Your task to perform on an android device: open app "Roku - Official Remote Control" (install if not already installed) Image 0: 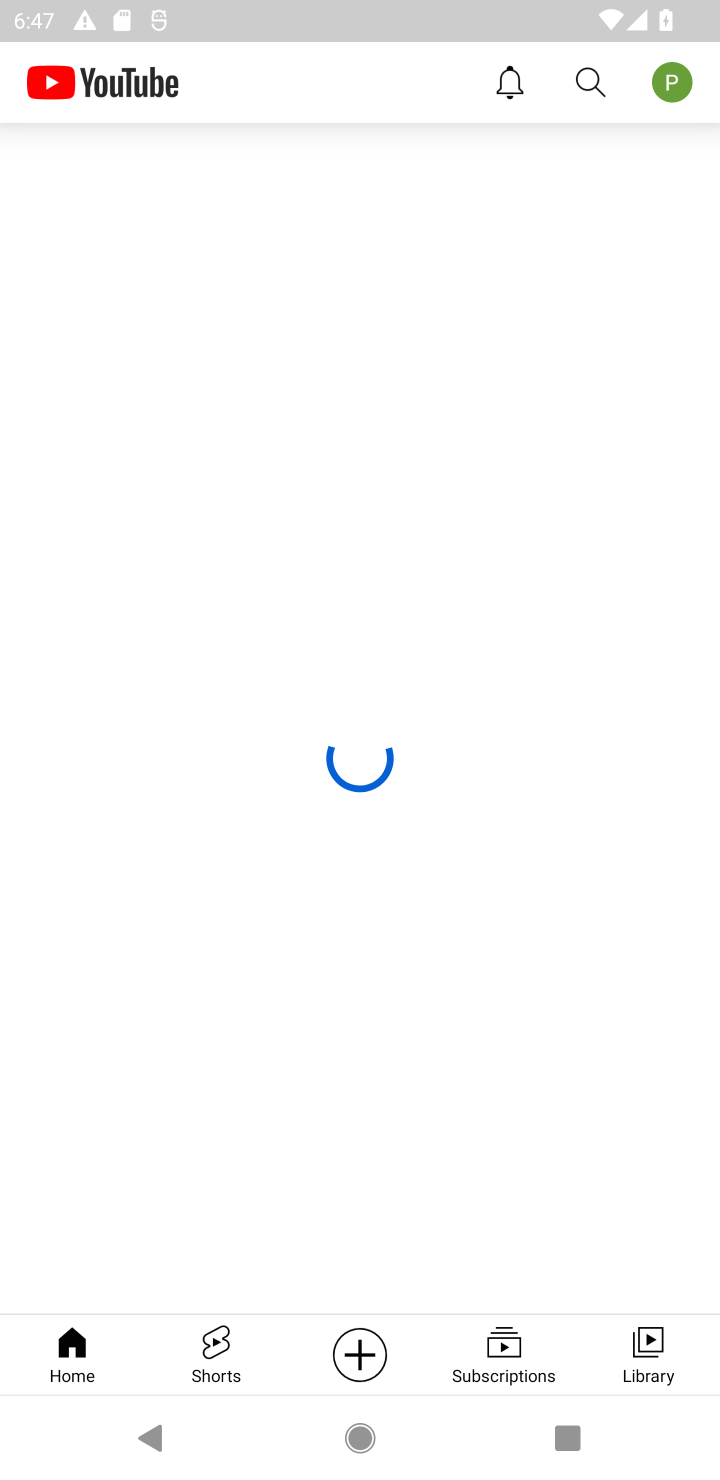
Step 0: press home button
Your task to perform on an android device: open app "Roku - Official Remote Control" (install if not already installed) Image 1: 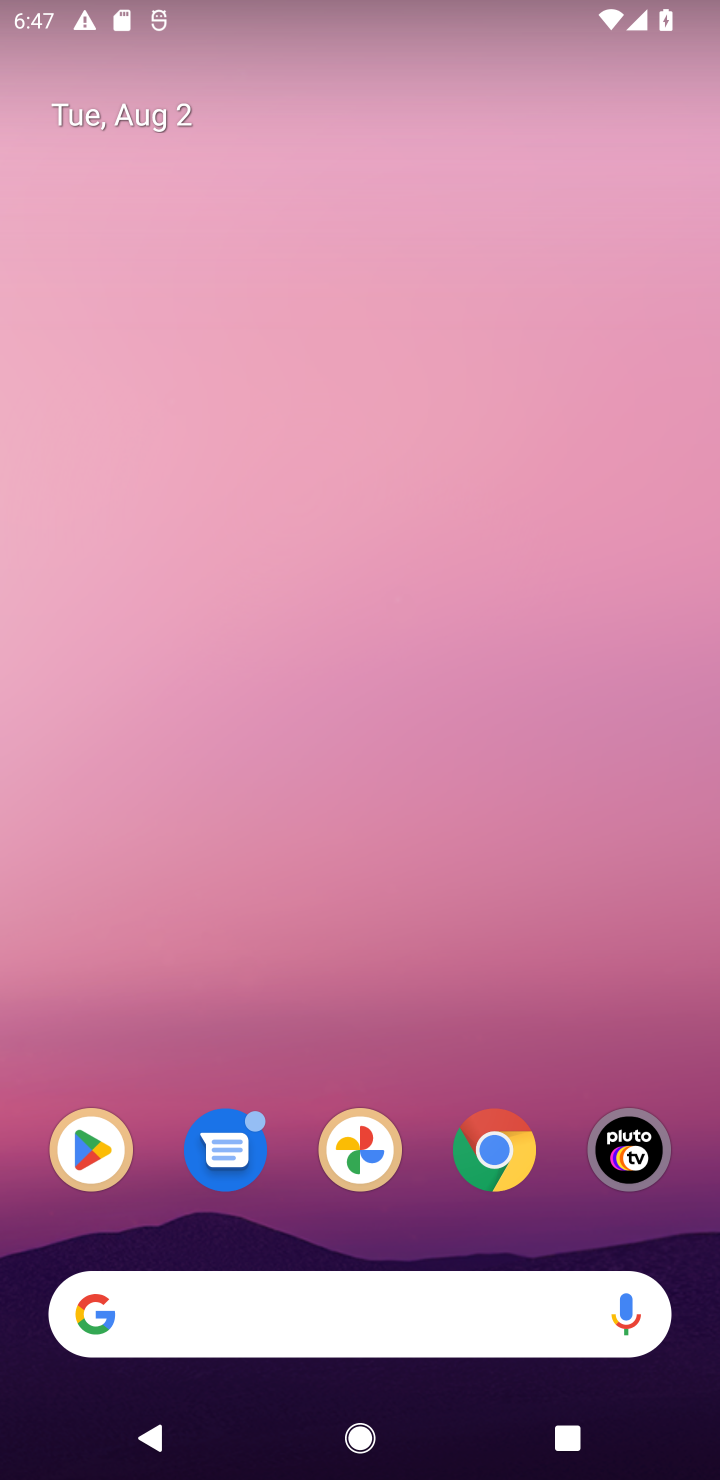
Step 1: drag from (342, 1273) to (494, 4)
Your task to perform on an android device: open app "Roku - Official Remote Control" (install if not already installed) Image 2: 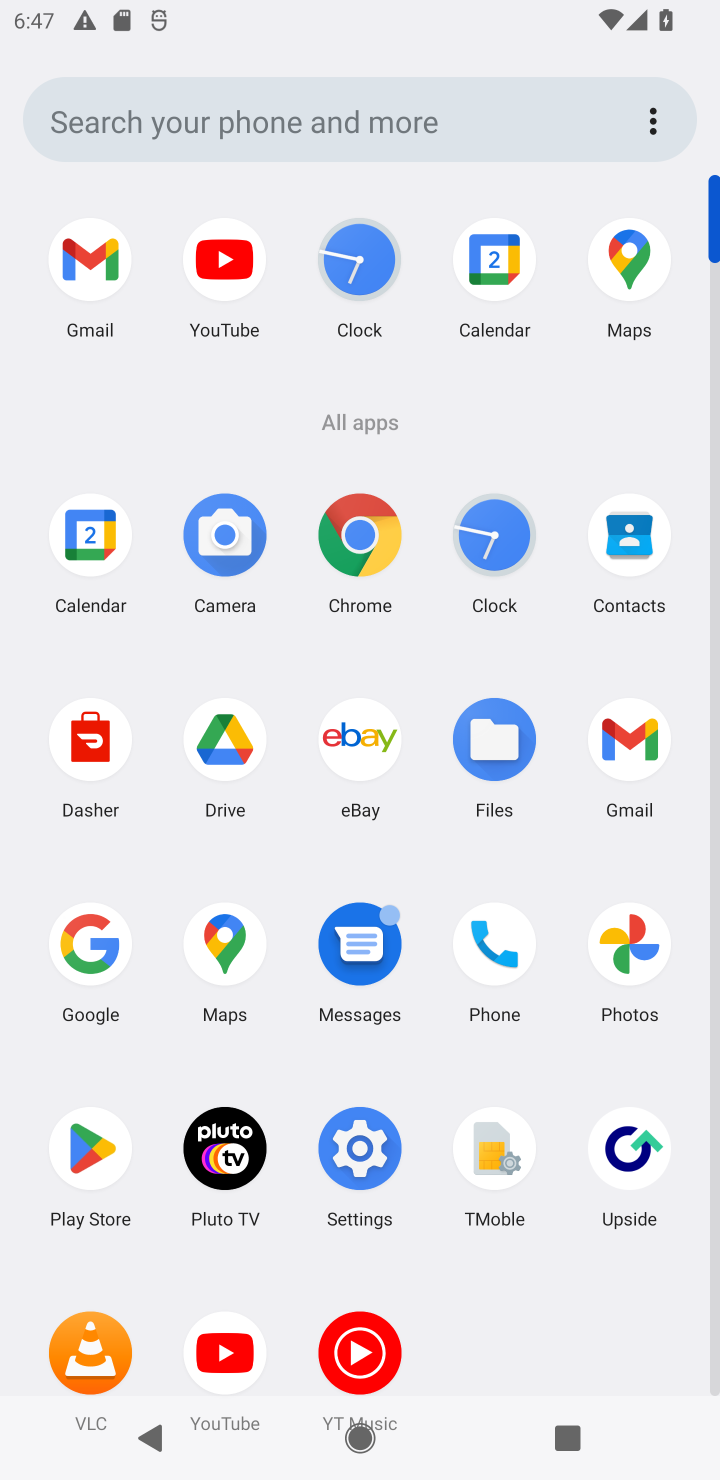
Step 2: click (70, 1157)
Your task to perform on an android device: open app "Roku - Official Remote Control" (install if not already installed) Image 3: 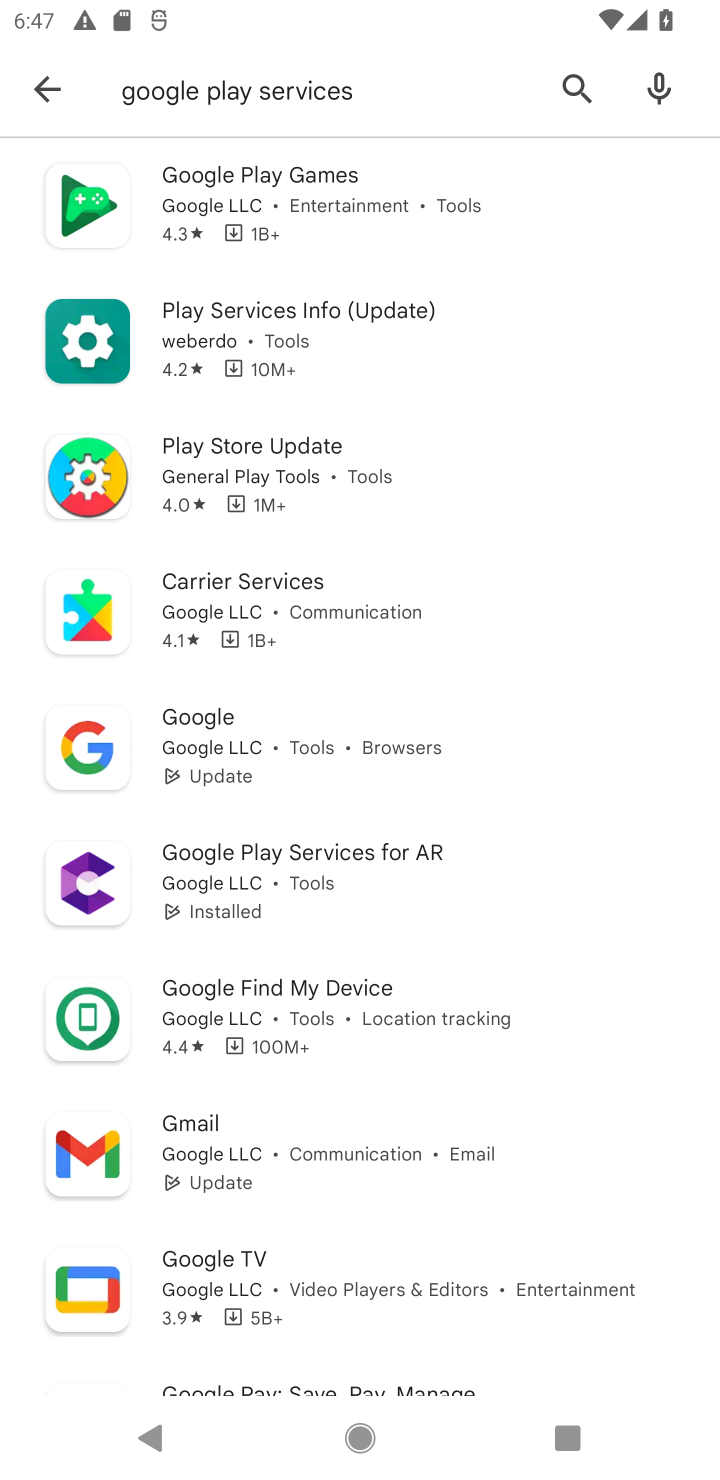
Step 3: click (31, 95)
Your task to perform on an android device: open app "Roku - Official Remote Control" (install if not already installed) Image 4: 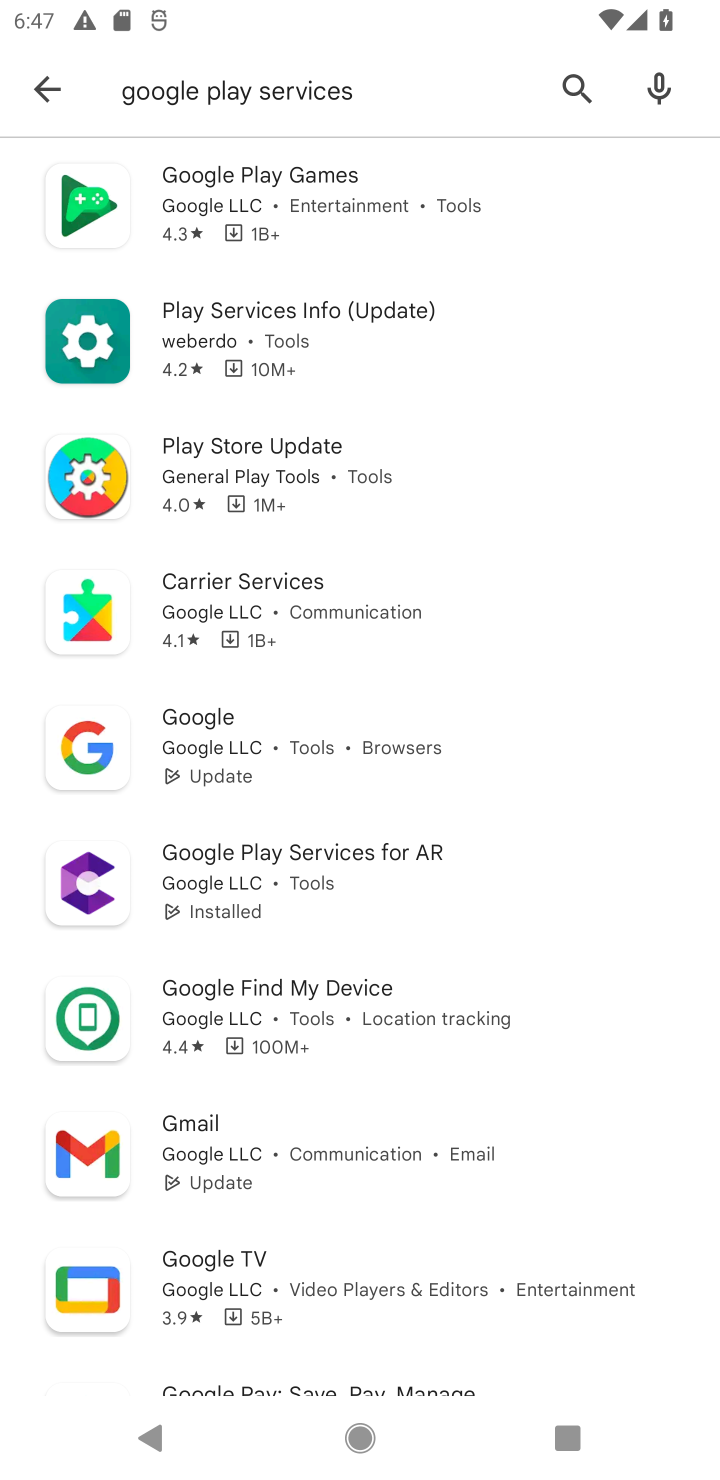
Step 4: click (30, 98)
Your task to perform on an android device: open app "Roku - Official Remote Control" (install if not already installed) Image 5: 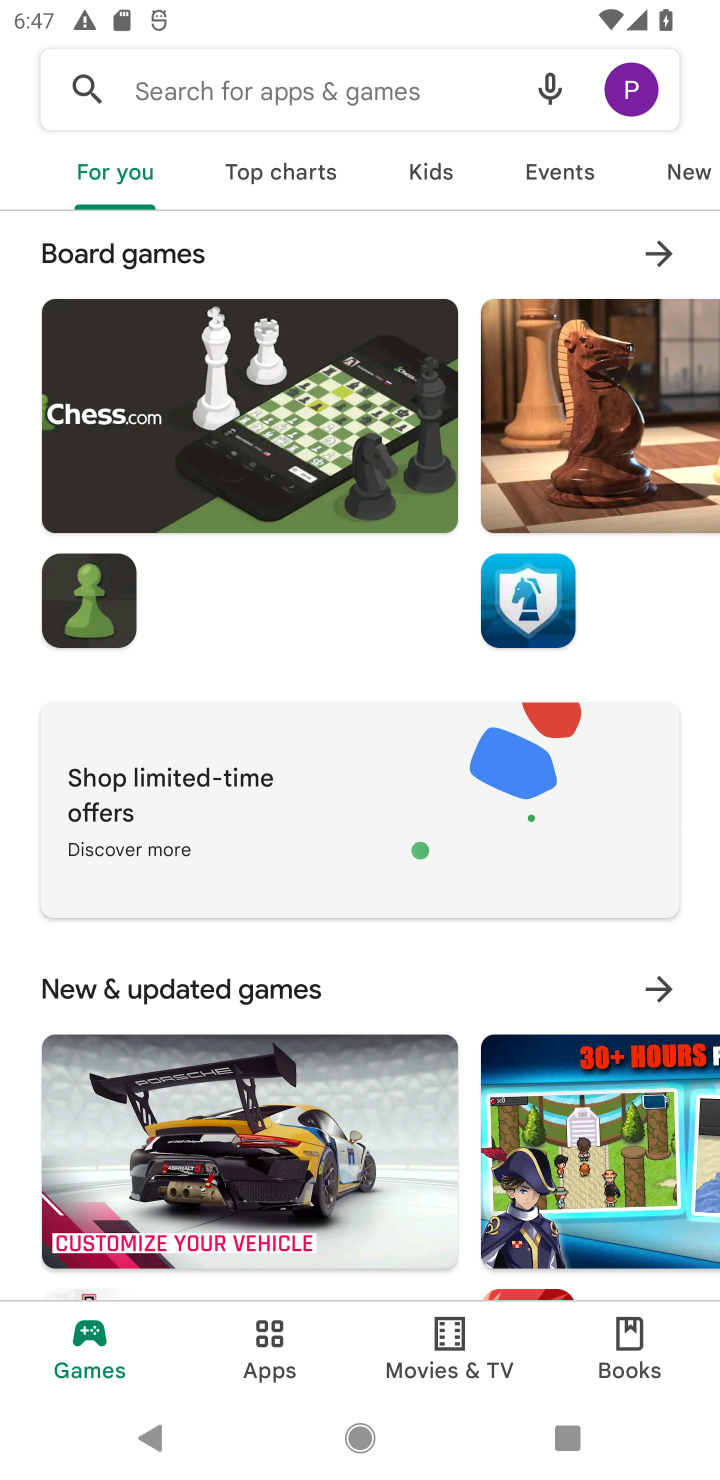
Step 5: click (147, 103)
Your task to perform on an android device: open app "Roku - Official Remote Control" (install if not already installed) Image 6: 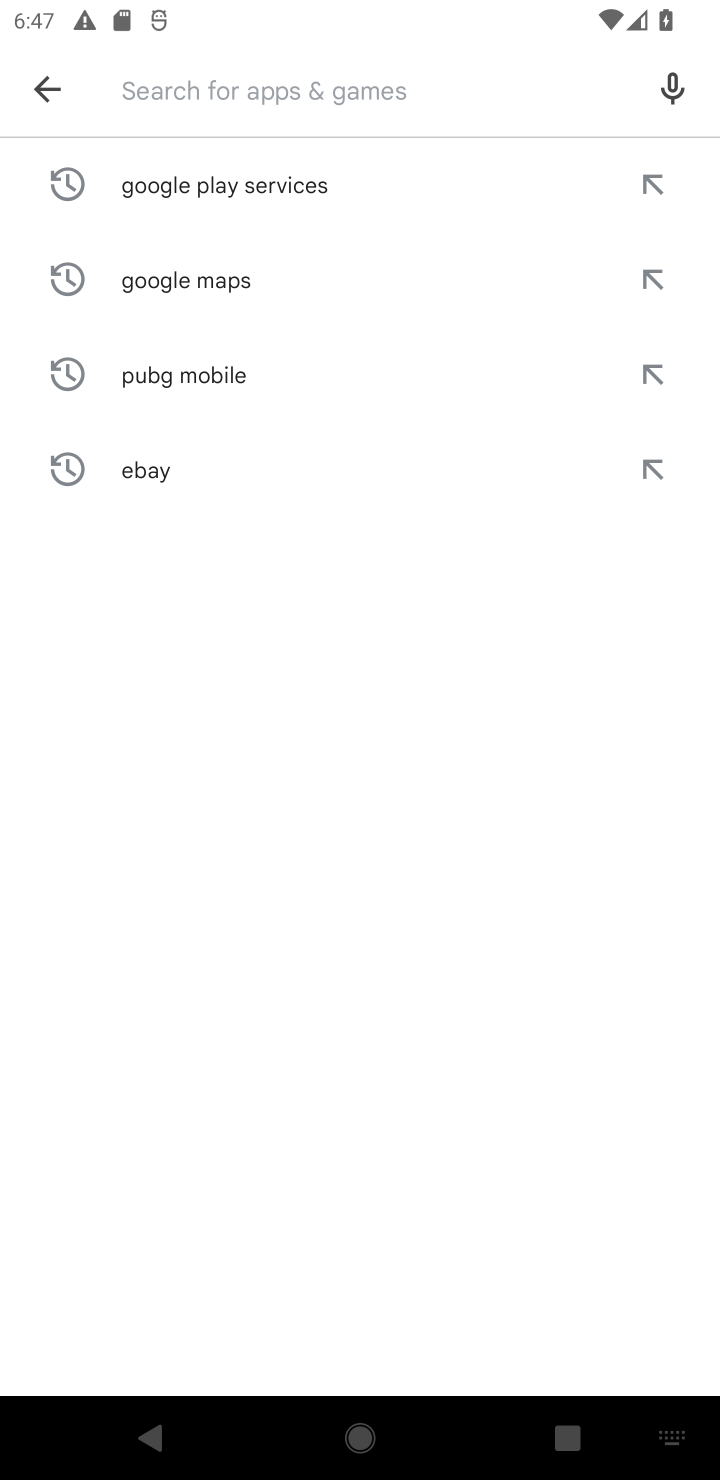
Step 6: type "Roku"
Your task to perform on an android device: open app "Roku - Official Remote Control" (install if not already installed) Image 7: 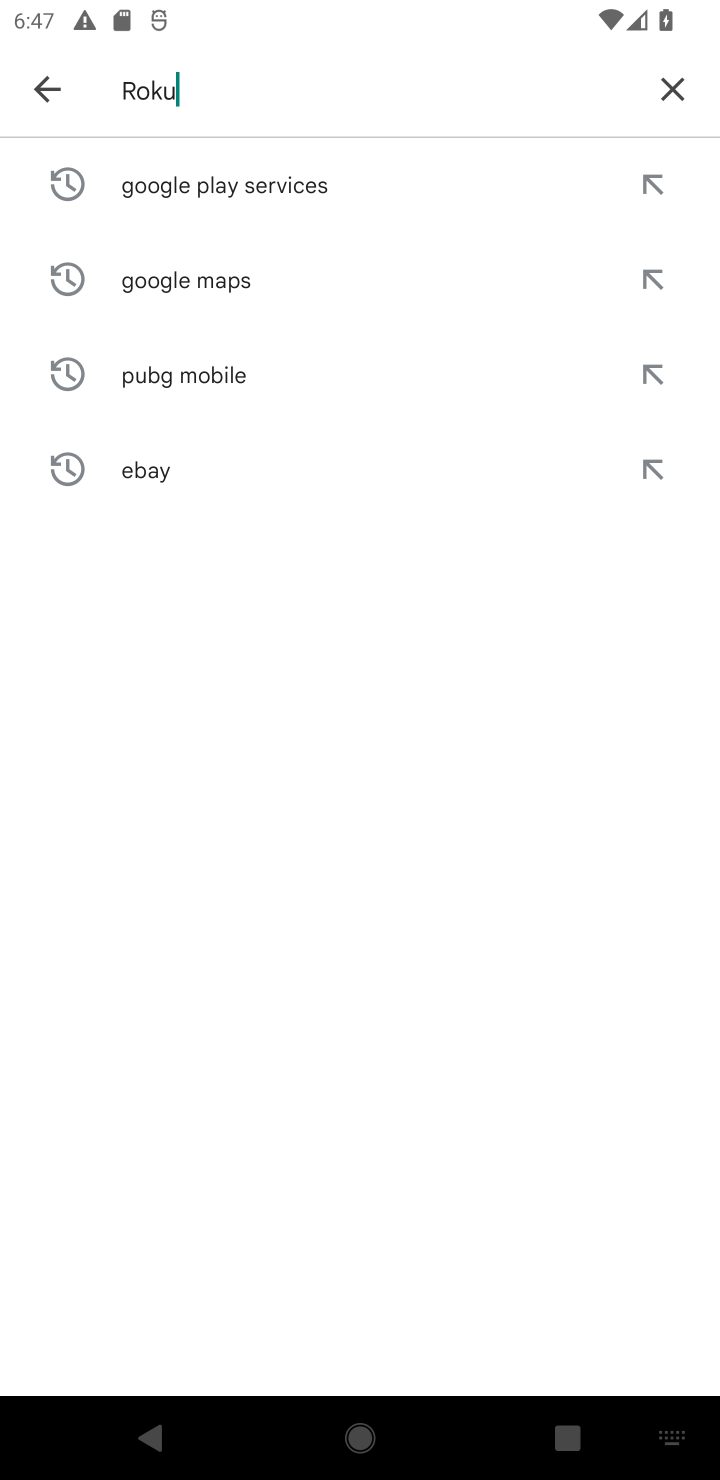
Step 7: type ""
Your task to perform on an android device: open app "Roku - Official Remote Control" (install if not already installed) Image 8: 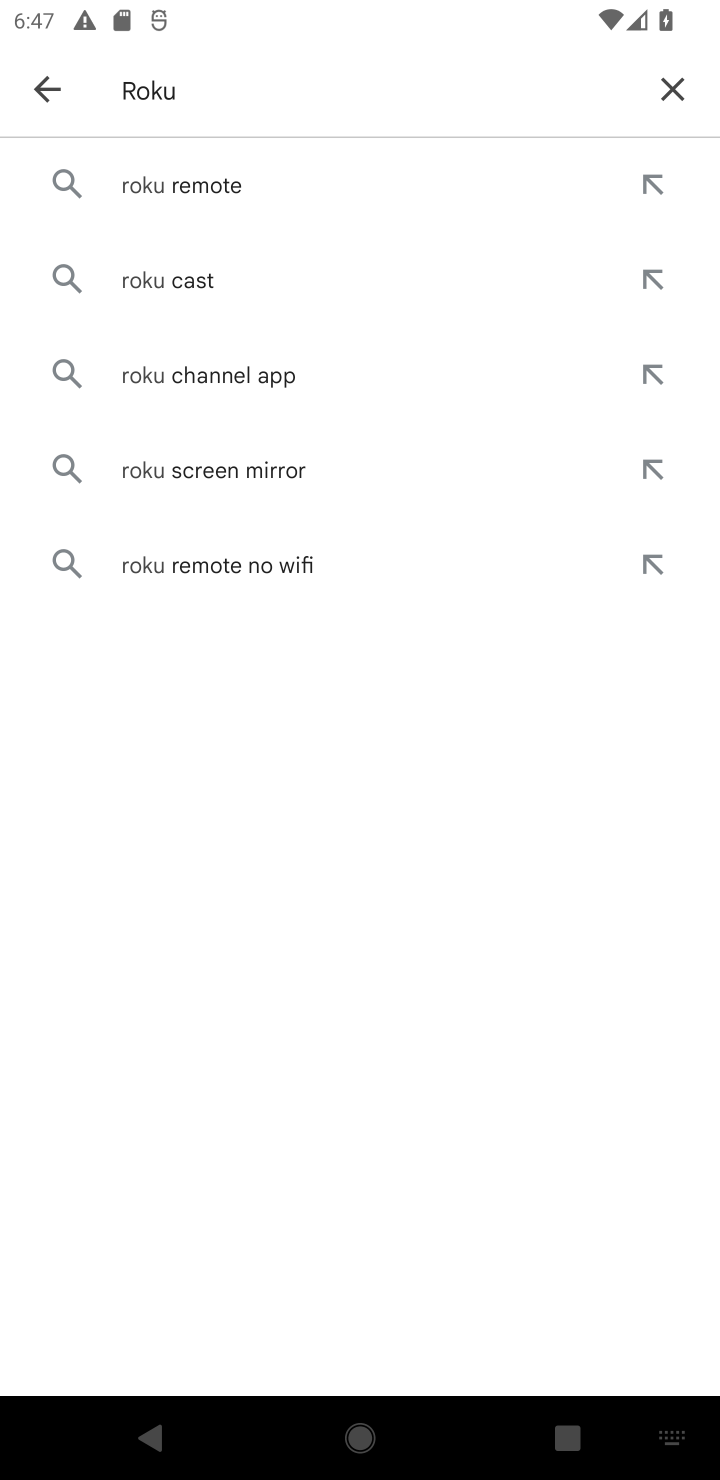
Step 8: click (191, 184)
Your task to perform on an android device: open app "Roku - Official Remote Control" (install if not already installed) Image 9: 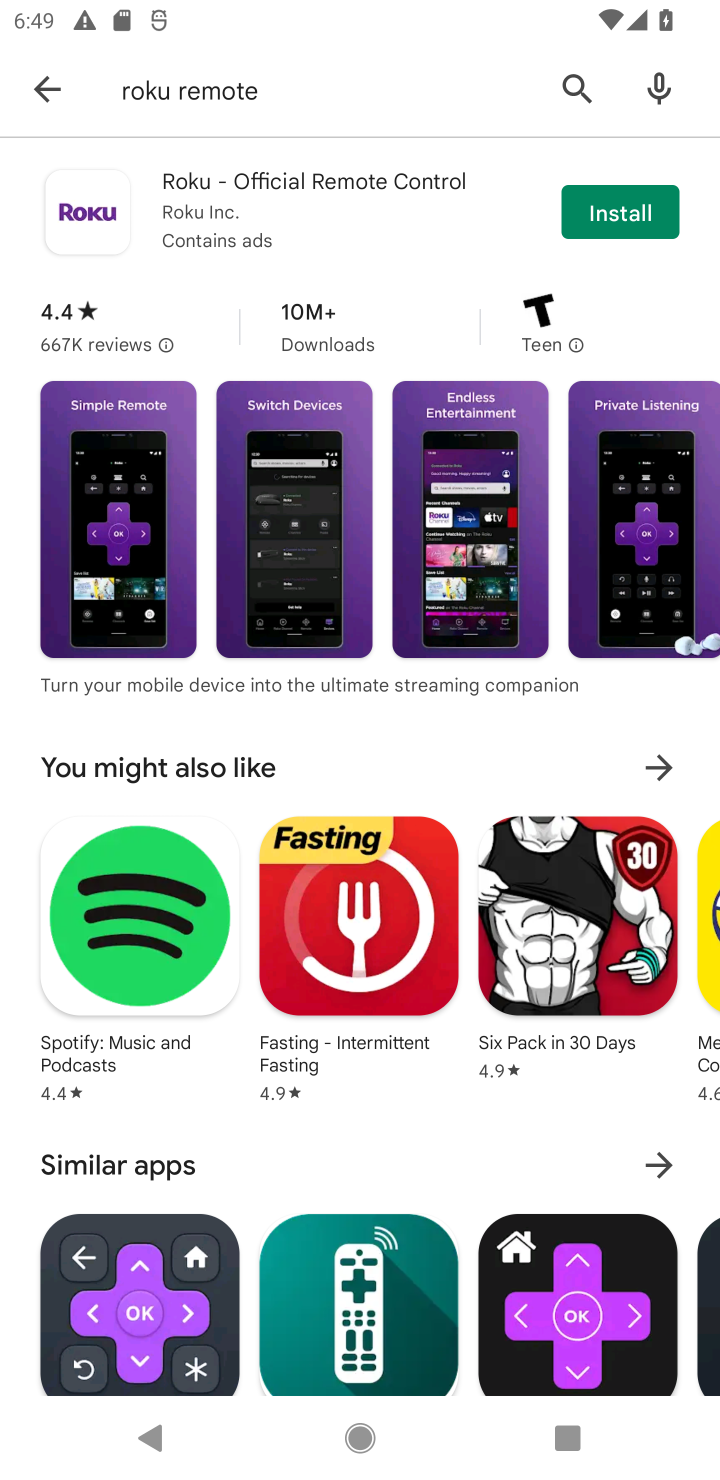
Step 9: click (588, 237)
Your task to perform on an android device: open app "Roku - Official Remote Control" (install if not already installed) Image 10: 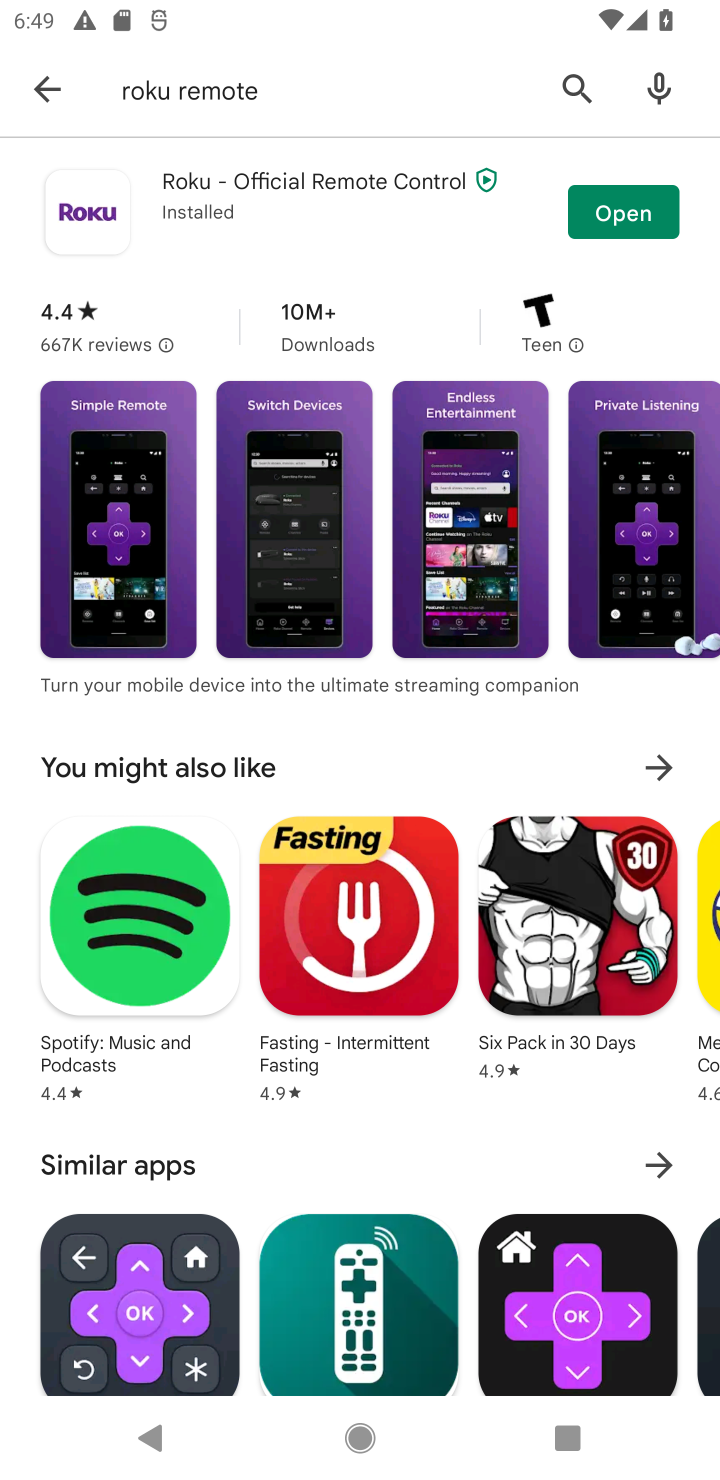
Step 10: click (615, 216)
Your task to perform on an android device: open app "Roku - Official Remote Control" (install if not already installed) Image 11: 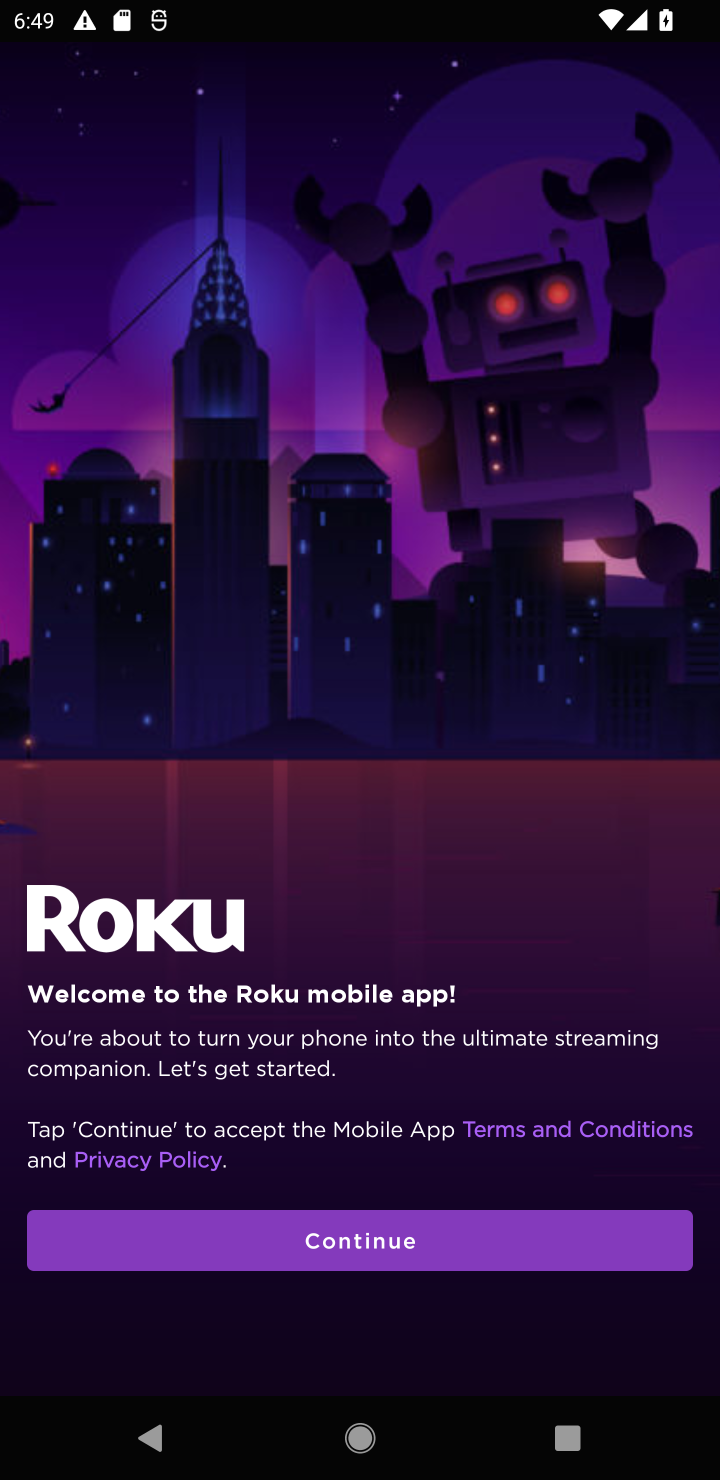
Step 11: task complete